Your task to perform on an android device: Do I have any events tomorrow? Image 0: 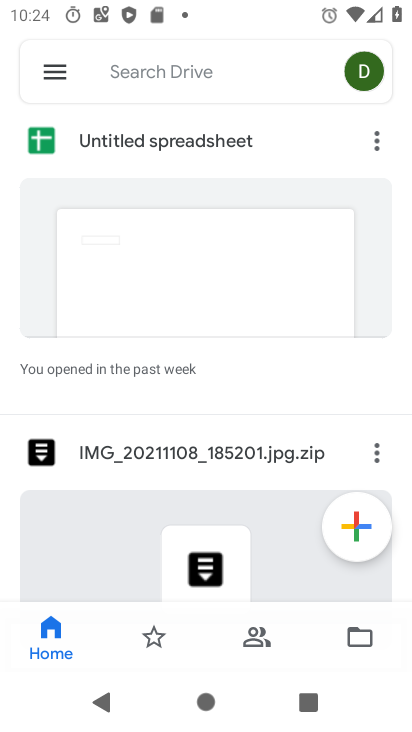
Step 0: press home button
Your task to perform on an android device: Do I have any events tomorrow? Image 1: 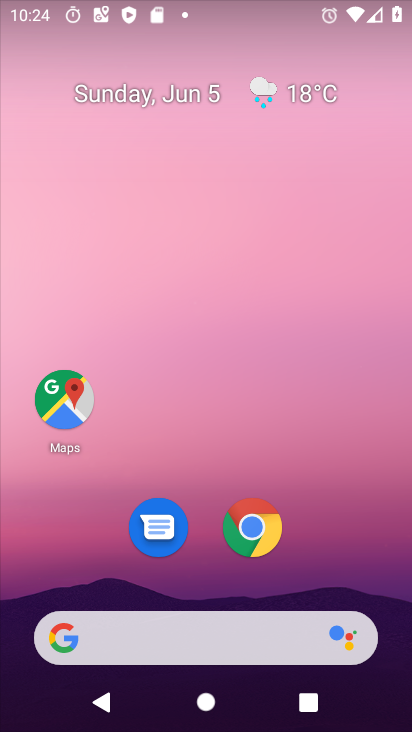
Step 1: drag from (365, 559) to (296, 57)
Your task to perform on an android device: Do I have any events tomorrow? Image 2: 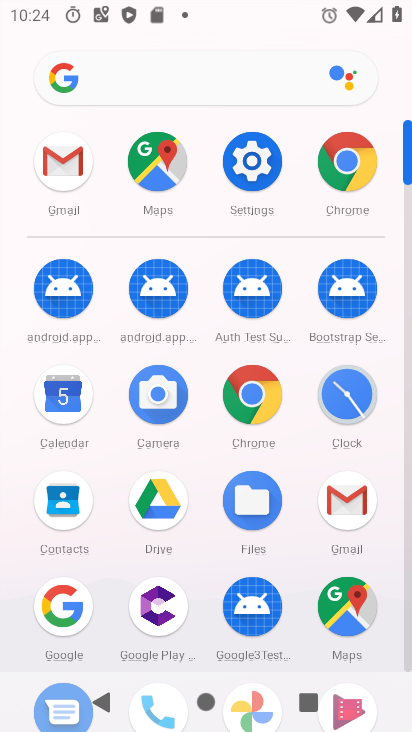
Step 2: click (67, 404)
Your task to perform on an android device: Do I have any events tomorrow? Image 3: 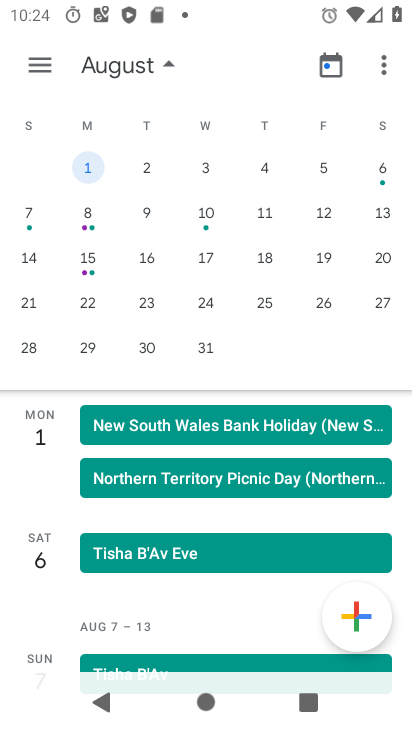
Step 3: click (149, 165)
Your task to perform on an android device: Do I have any events tomorrow? Image 4: 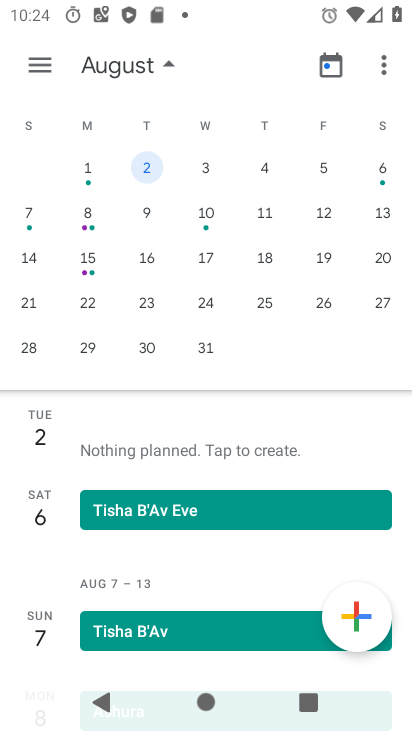
Step 4: task complete